Your task to perform on an android device: change timer sound Image 0: 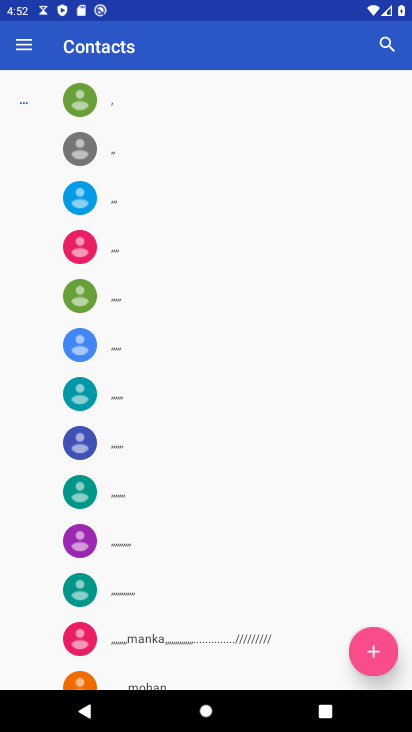
Step 0: press back button
Your task to perform on an android device: change timer sound Image 1: 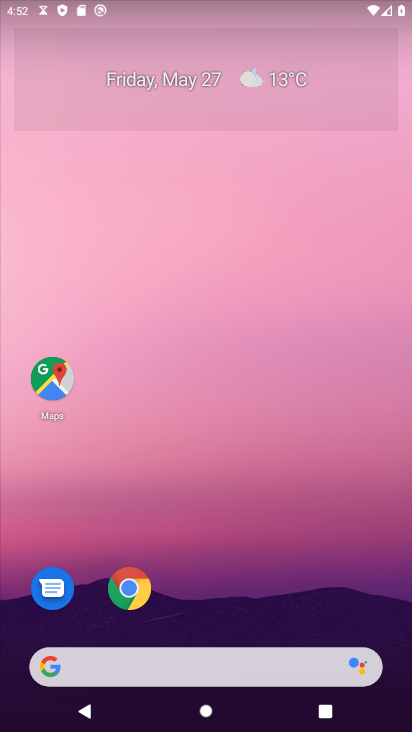
Step 1: drag from (222, 600) to (289, 162)
Your task to perform on an android device: change timer sound Image 2: 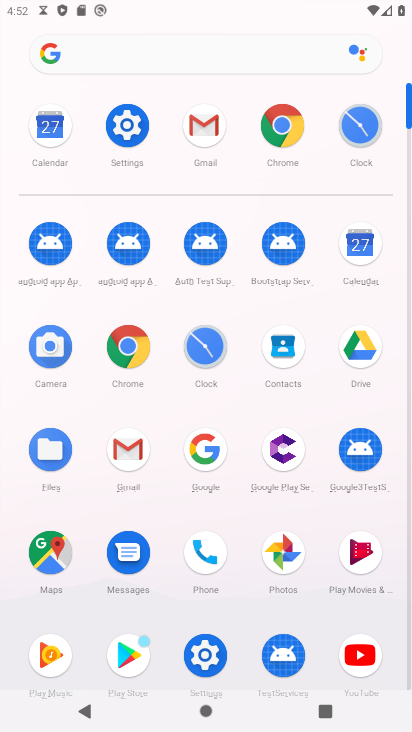
Step 2: click (212, 340)
Your task to perform on an android device: change timer sound Image 3: 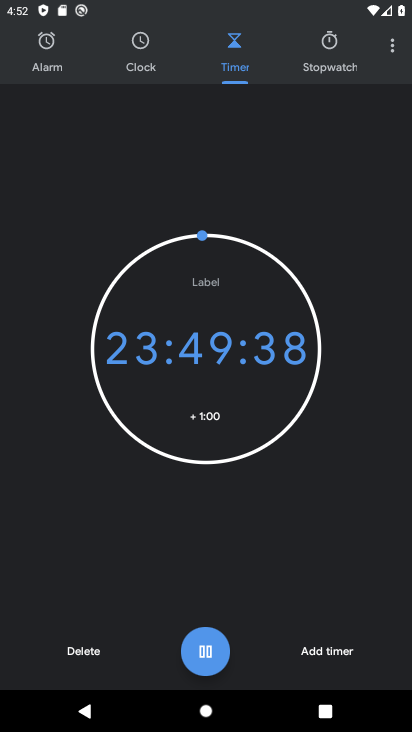
Step 3: click (388, 45)
Your task to perform on an android device: change timer sound Image 4: 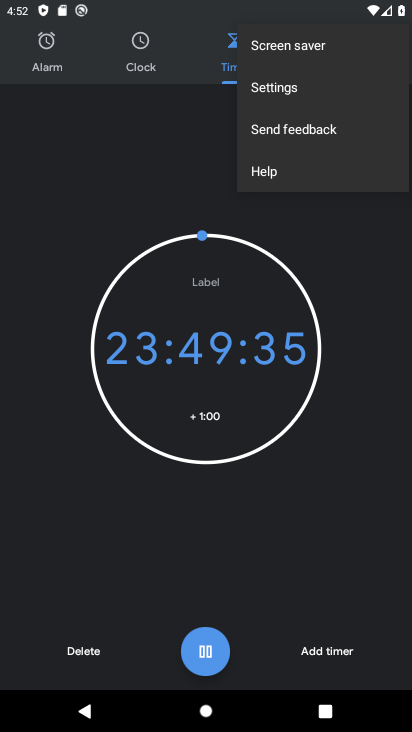
Step 4: click (298, 80)
Your task to perform on an android device: change timer sound Image 5: 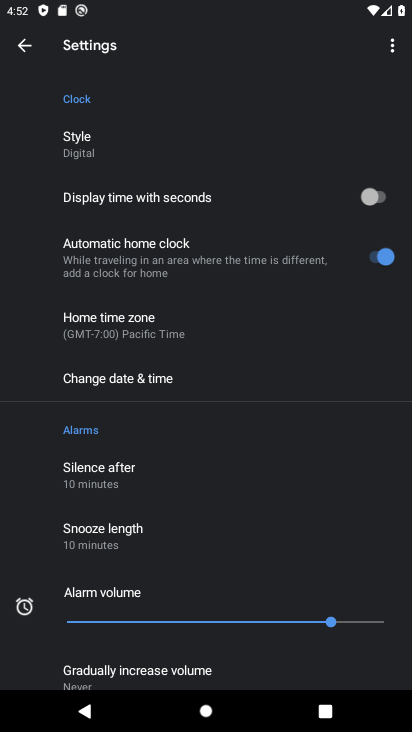
Step 5: drag from (165, 539) to (264, 149)
Your task to perform on an android device: change timer sound Image 6: 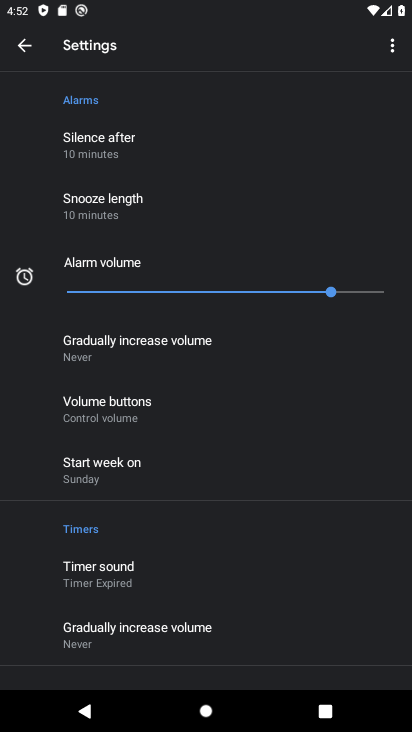
Step 6: click (126, 577)
Your task to perform on an android device: change timer sound Image 7: 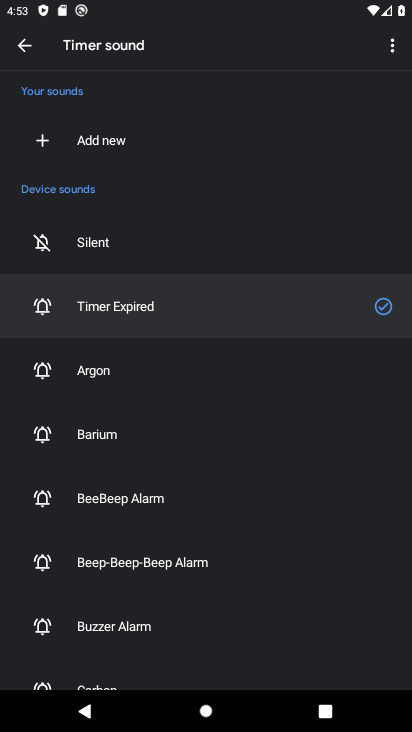
Step 7: click (123, 433)
Your task to perform on an android device: change timer sound Image 8: 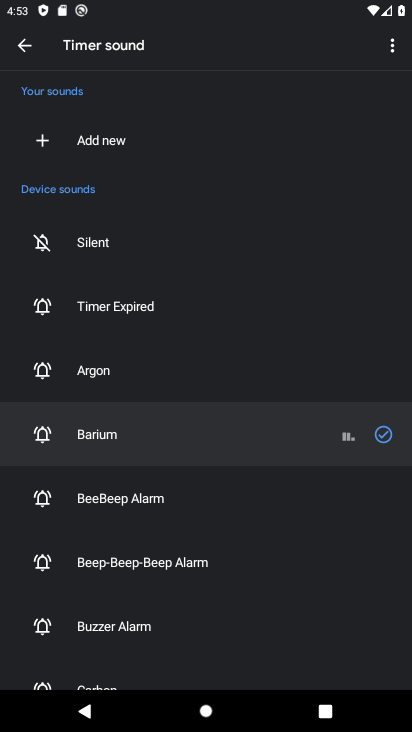
Step 8: task complete